Your task to perform on an android device: Open the Play Movies app and select the watchlist tab. Image 0: 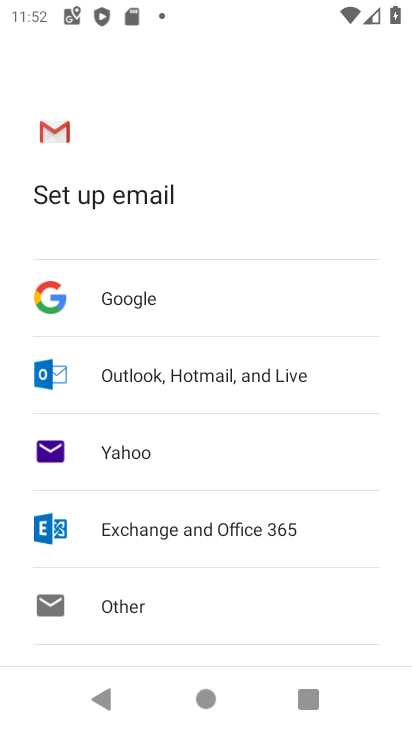
Step 0: press home button
Your task to perform on an android device: Open the Play Movies app and select the watchlist tab. Image 1: 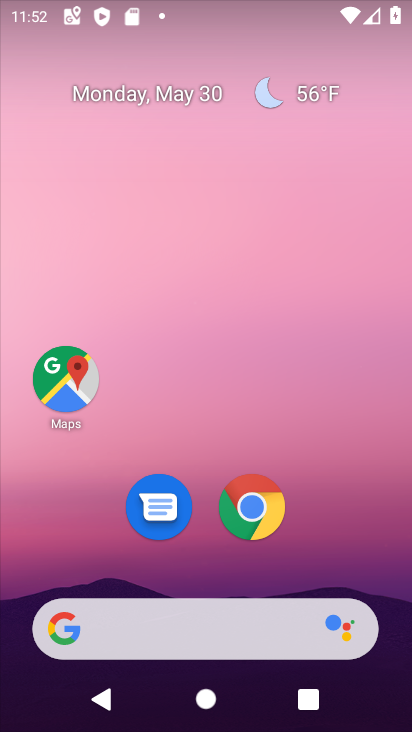
Step 1: drag from (333, 559) to (278, 267)
Your task to perform on an android device: Open the Play Movies app and select the watchlist tab. Image 2: 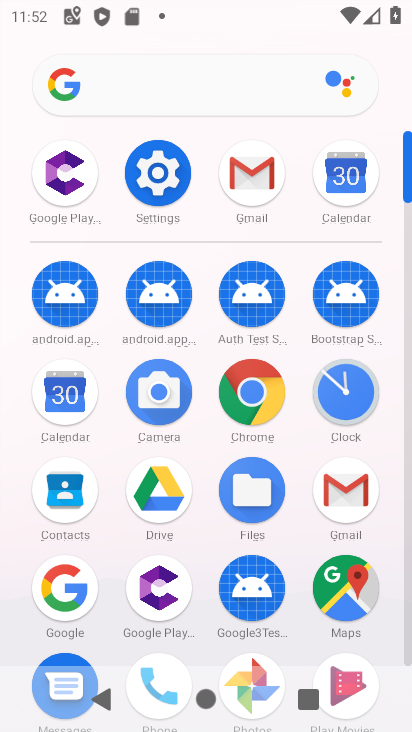
Step 2: drag from (199, 637) to (208, 392)
Your task to perform on an android device: Open the Play Movies app and select the watchlist tab. Image 3: 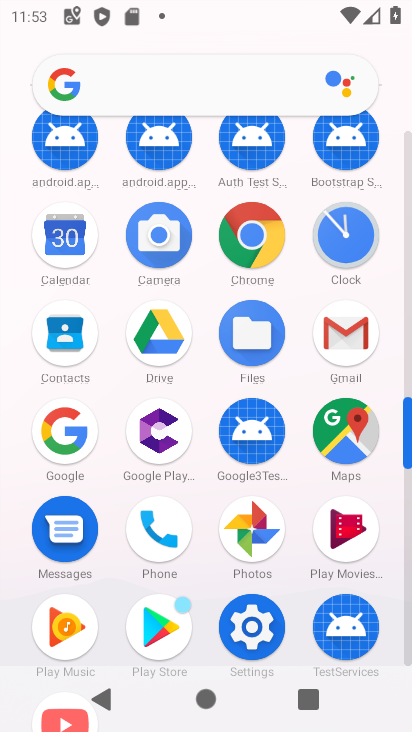
Step 3: click (340, 528)
Your task to perform on an android device: Open the Play Movies app and select the watchlist tab. Image 4: 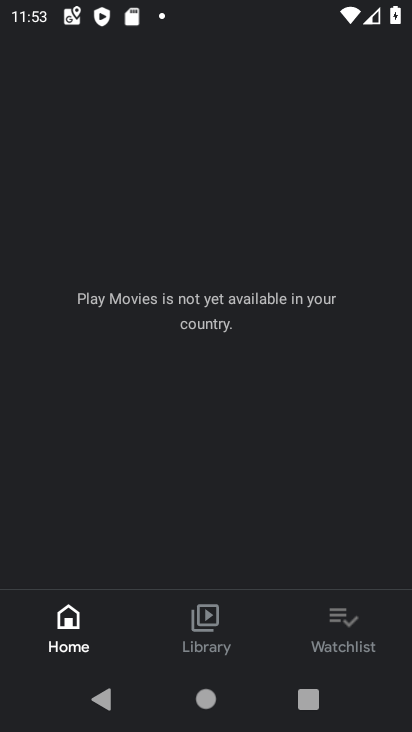
Step 4: click (339, 625)
Your task to perform on an android device: Open the Play Movies app and select the watchlist tab. Image 5: 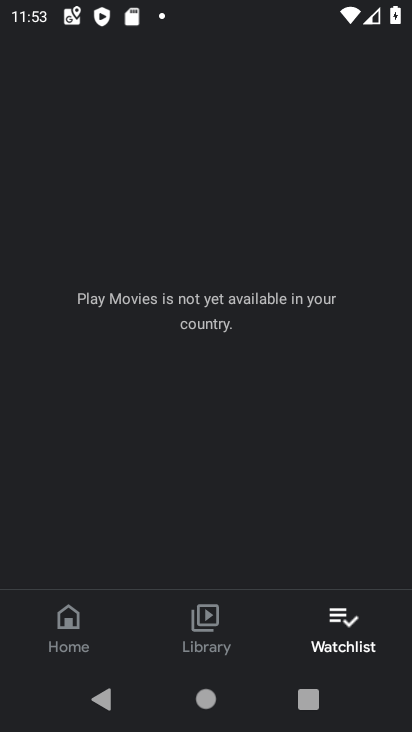
Step 5: task complete